Your task to perform on an android device: move an email to a new category in the gmail app Image 0: 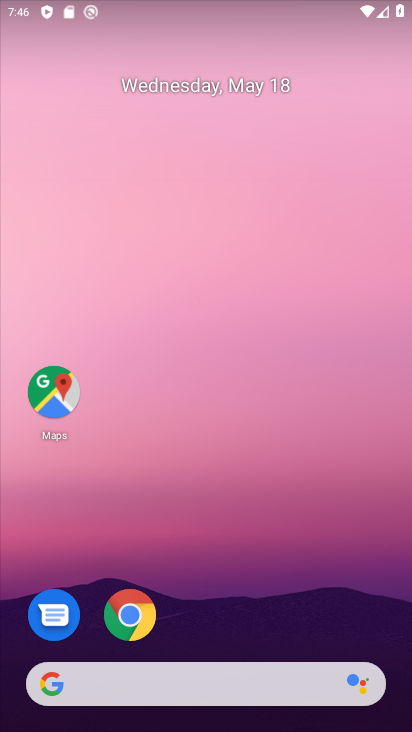
Step 0: drag from (290, 352) to (301, 261)
Your task to perform on an android device: move an email to a new category in the gmail app Image 1: 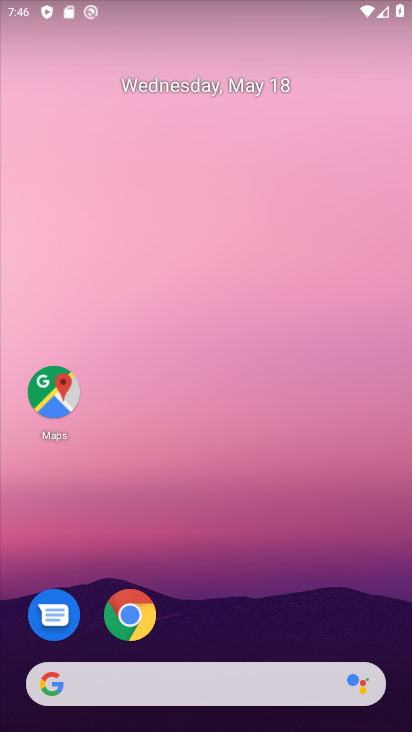
Step 1: drag from (258, 615) to (247, 167)
Your task to perform on an android device: move an email to a new category in the gmail app Image 2: 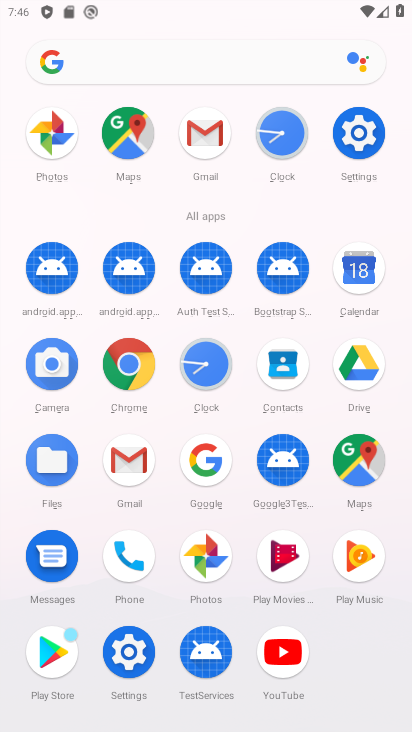
Step 2: click (114, 461)
Your task to perform on an android device: move an email to a new category in the gmail app Image 3: 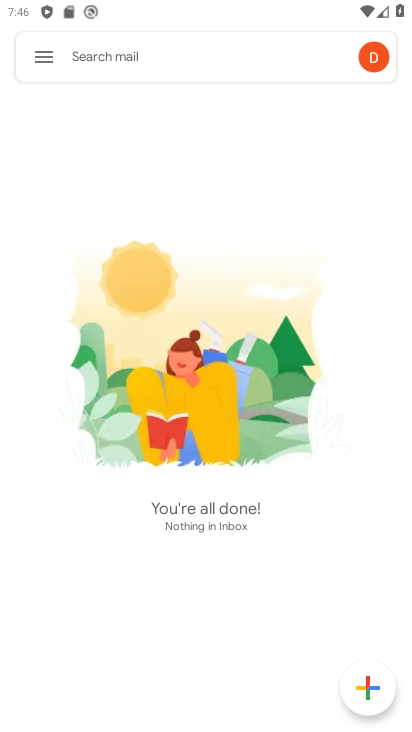
Step 3: click (44, 53)
Your task to perform on an android device: move an email to a new category in the gmail app Image 4: 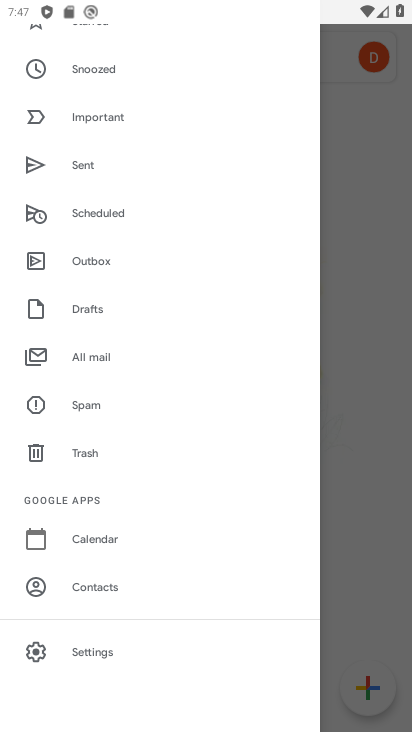
Step 4: click (132, 351)
Your task to perform on an android device: move an email to a new category in the gmail app Image 5: 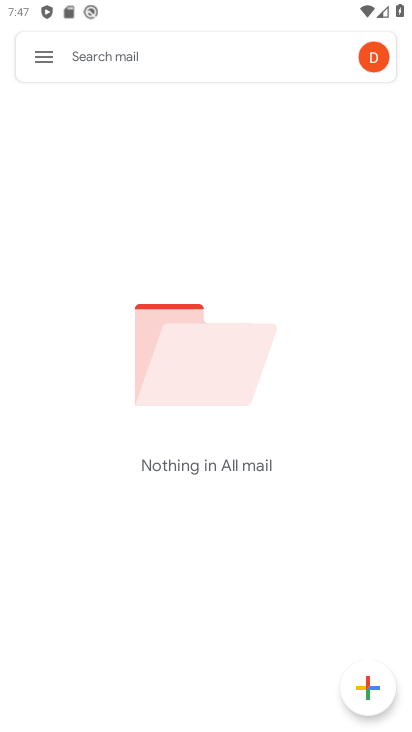
Step 5: task complete